Your task to perform on an android device: check battery use Image 0: 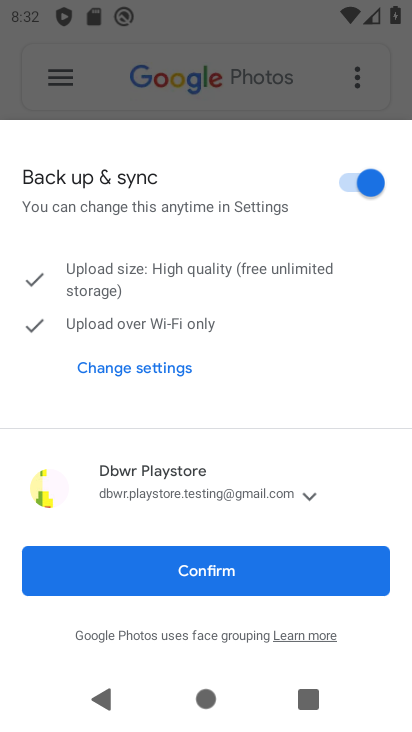
Step 0: press home button
Your task to perform on an android device: check battery use Image 1: 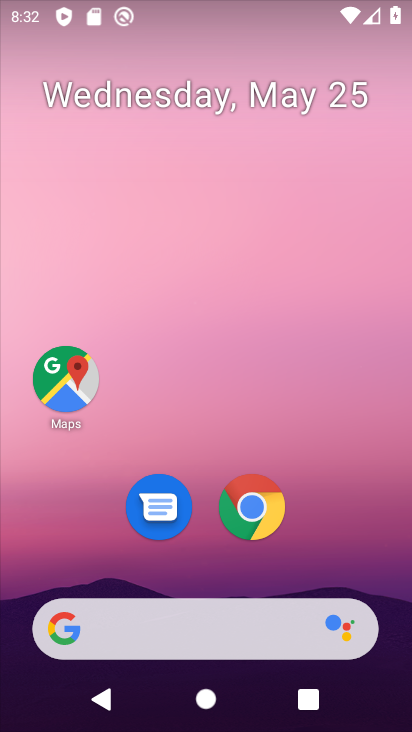
Step 1: drag from (252, 582) to (208, 1)
Your task to perform on an android device: check battery use Image 2: 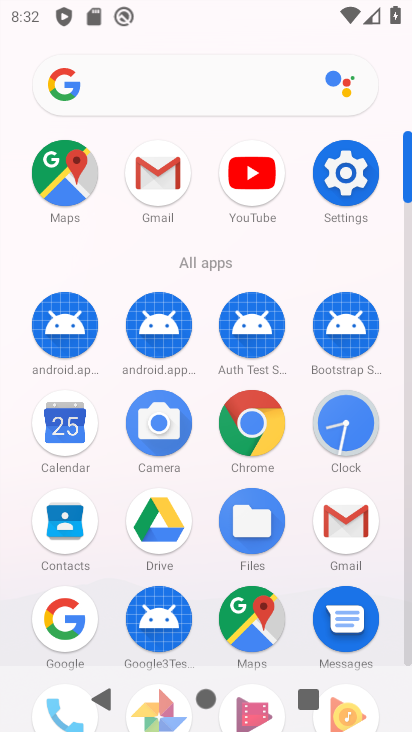
Step 2: click (348, 164)
Your task to perform on an android device: check battery use Image 3: 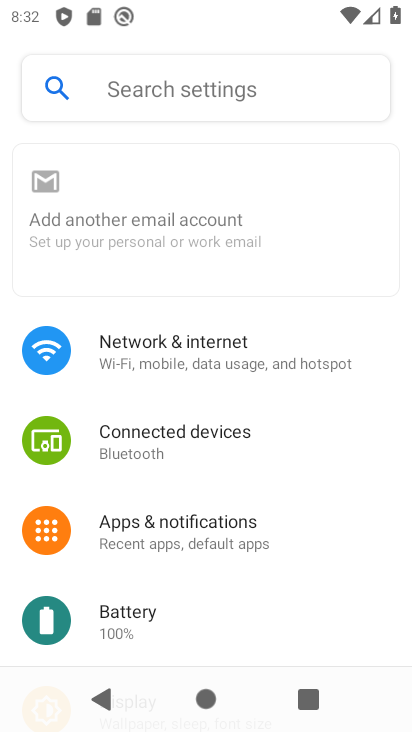
Step 3: click (99, 603)
Your task to perform on an android device: check battery use Image 4: 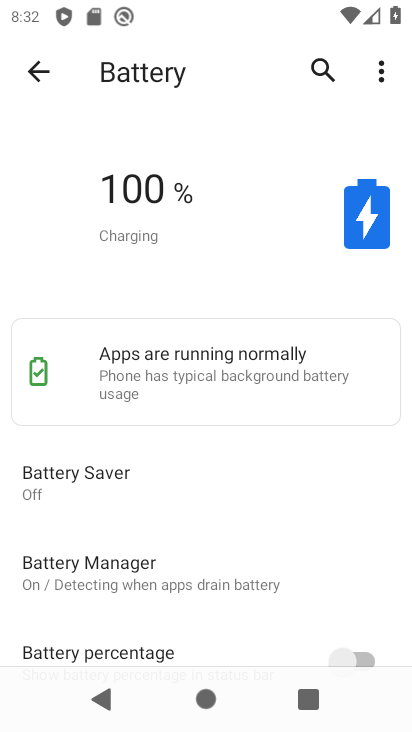
Step 4: click (147, 563)
Your task to perform on an android device: check battery use Image 5: 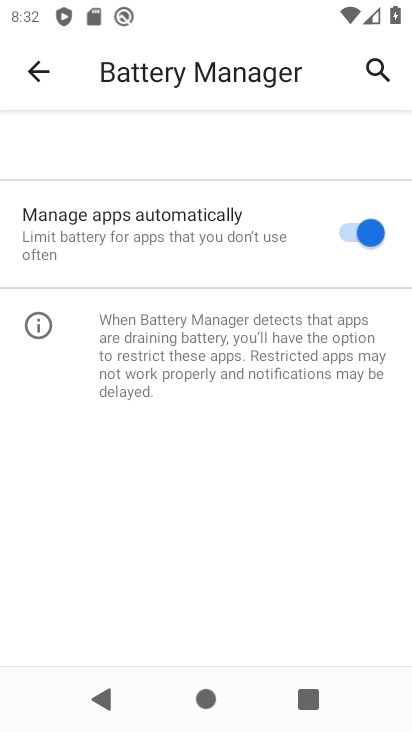
Step 5: click (110, 570)
Your task to perform on an android device: check battery use Image 6: 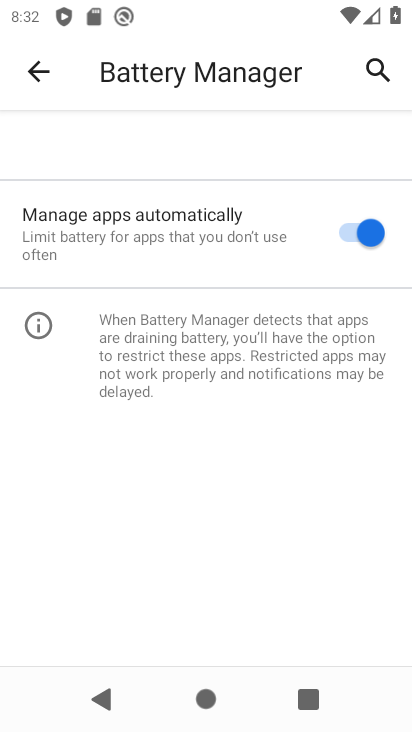
Step 6: task complete